Your task to perform on an android device: Open Amazon Image 0: 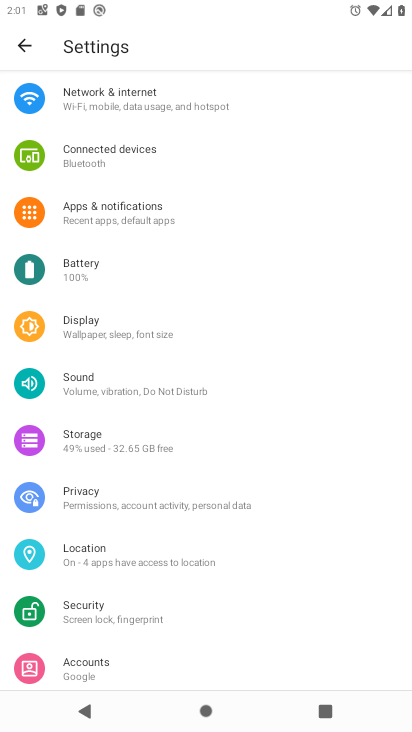
Step 0: press home button
Your task to perform on an android device: Open Amazon Image 1: 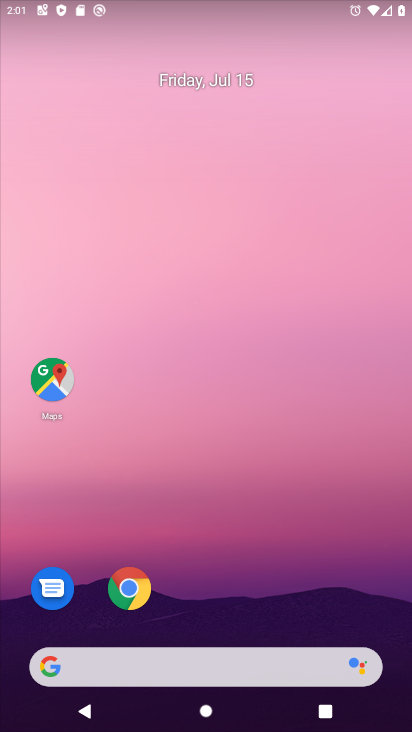
Step 1: click (128, 589)
Your task to perform on an android device: Open Amazon Image 2: 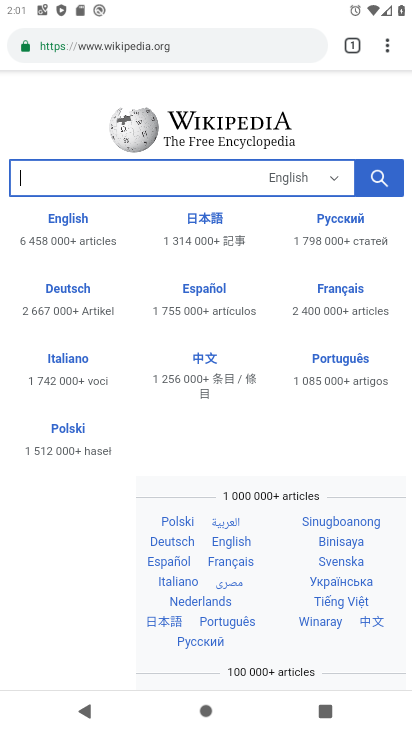
Step 2: click (262, 54)
Your task to perform on an android device: Open Amazon Image 3: 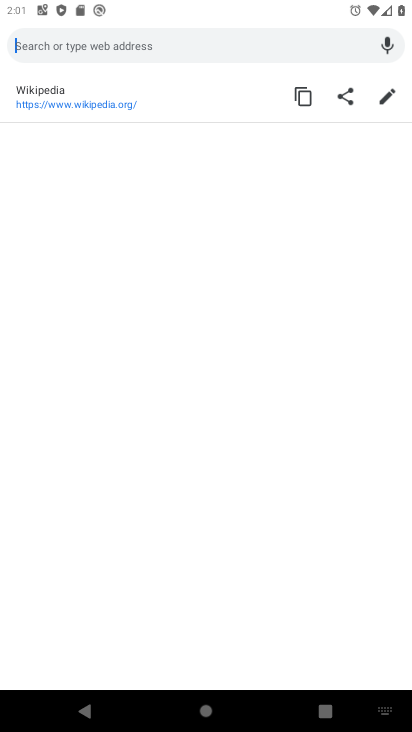
Step 3: type "Amazon"
Your task to perform on an android device: Open Amazon Image 4: 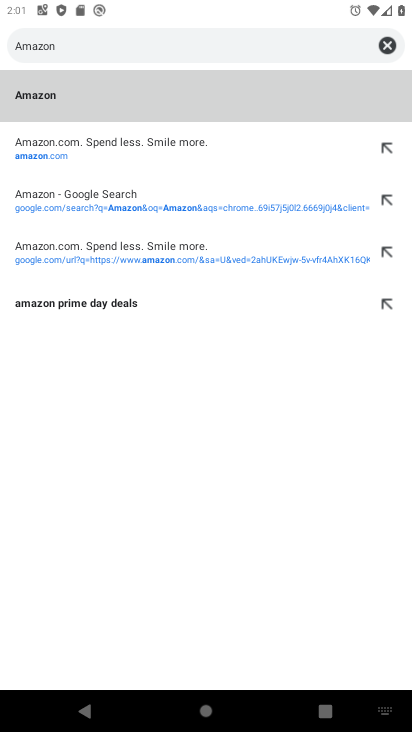
Step 4: click (155, 104)
Your task to perform on an android device: Open Amazon Image 5: 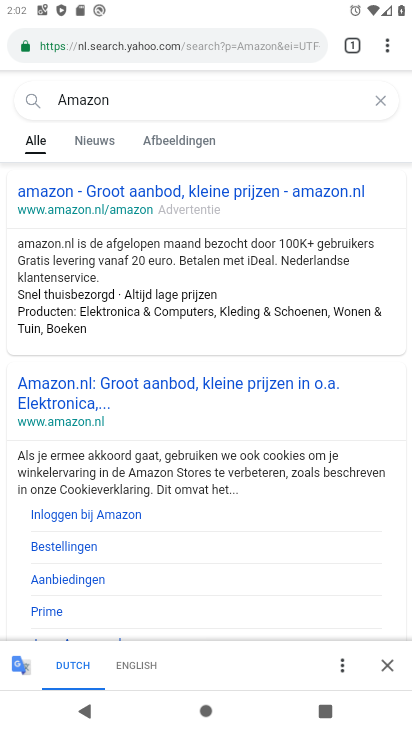
Step 5: click (98, 208)
Your task to perform on an android device: Open Amazon Image 6: 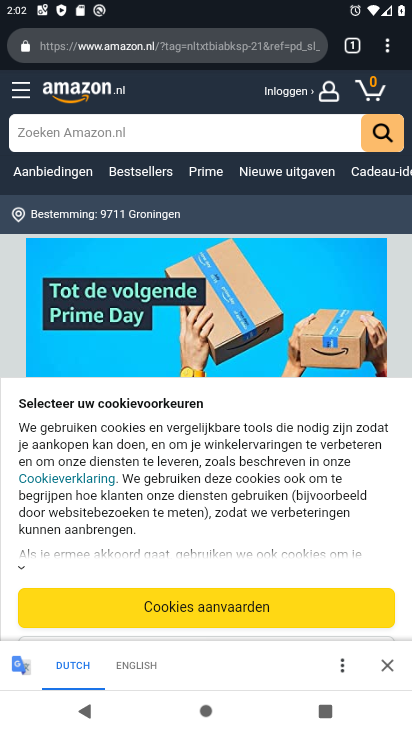
Step 6: click (137, 667)
Your task to perform on an android device: Open Amazon Image 7: 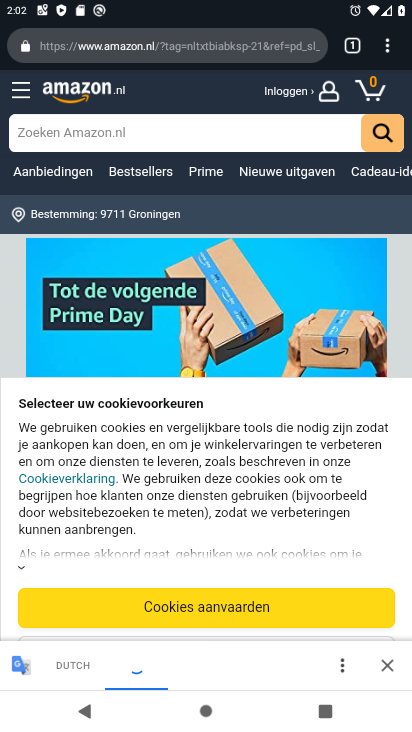
Step 7: task complete